Your task to perform on an android device: turn on airplane mode Image 0: 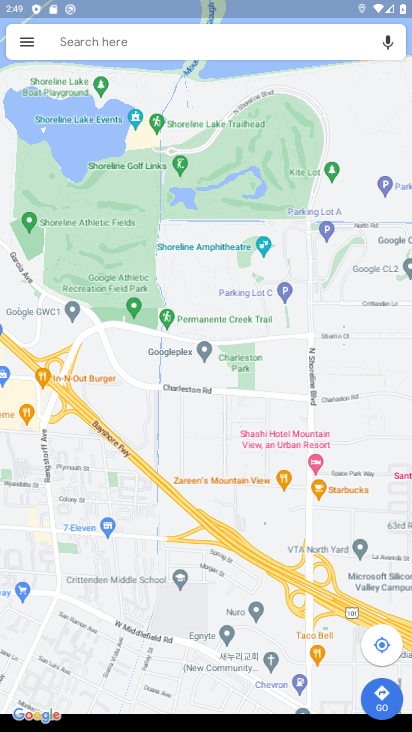
Step 0: click (149, 158)
Your task to perform on an android device: turn on airplane mode Image 1: 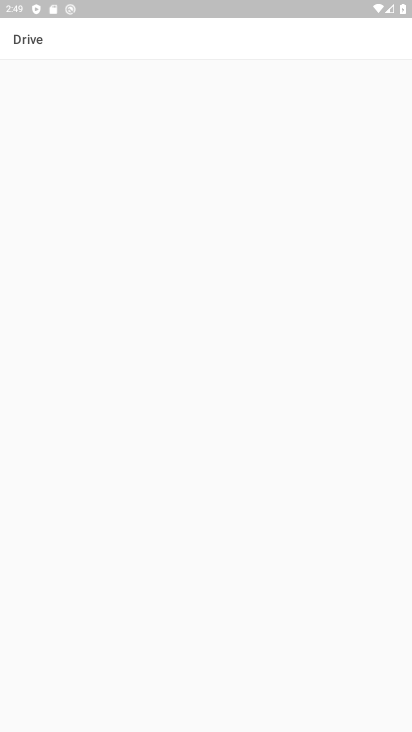
Step 1: press back button
Your task to perform on an android device: turn on airplane mode Image 2: 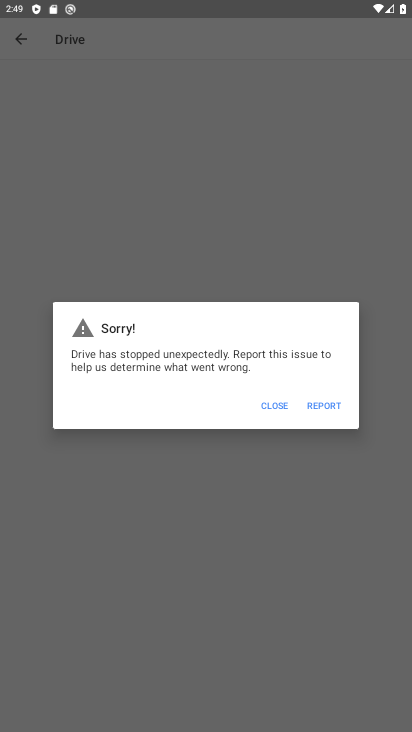
Step 2: click (277, 398)
Your task to perform on an android device: turn on airplane mode Image 3: 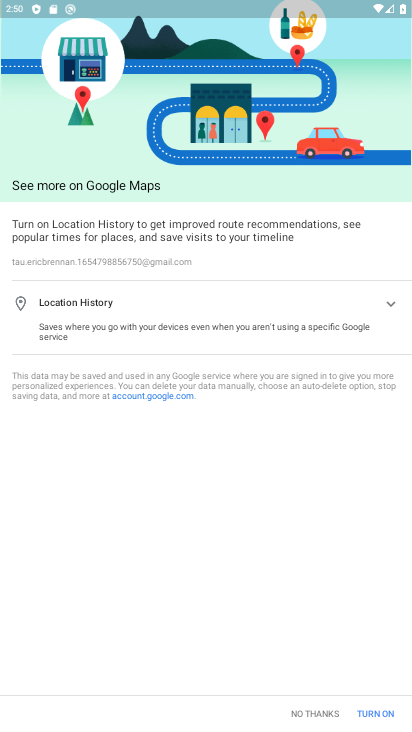
Step 3: press back button
Your task to perform on an android device: turn on airplane mode Image 4: 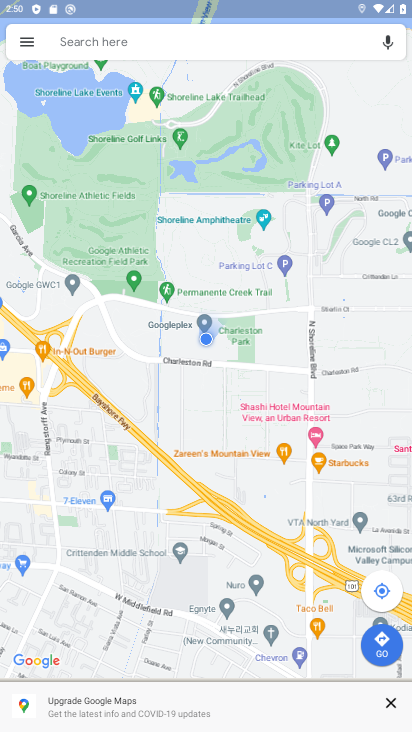
Step 4: press back button
Your task to perform on an android device: turn on airplane mode Image 5: 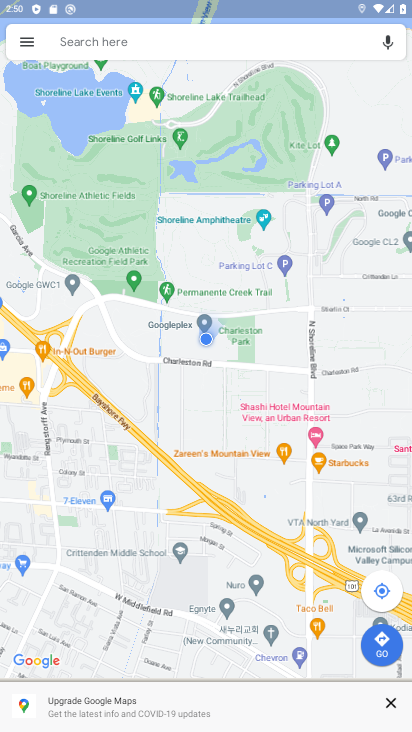
Step 5: press back button
Your task to perform on an android device: turn on airplane mode Image 6: 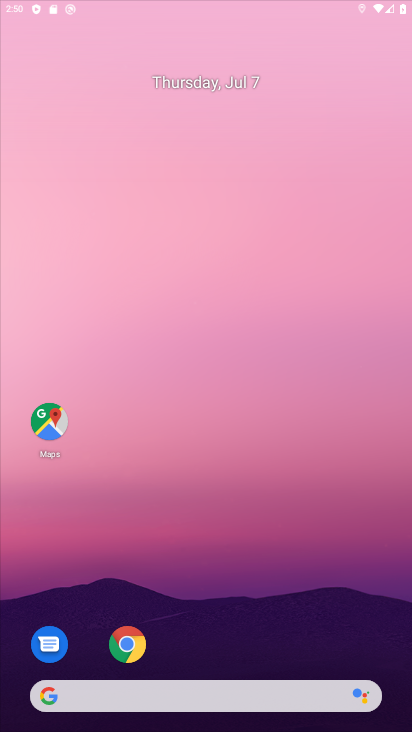
Step 6: press back button
Your task to perform on an android device: turn on airplane mode Image 7: 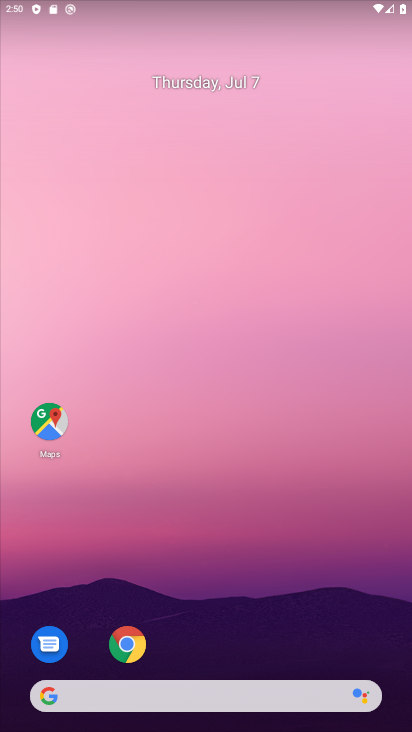
Step 7: press home button
Your task to perform on an android device: turn on airplane mode Image 8: 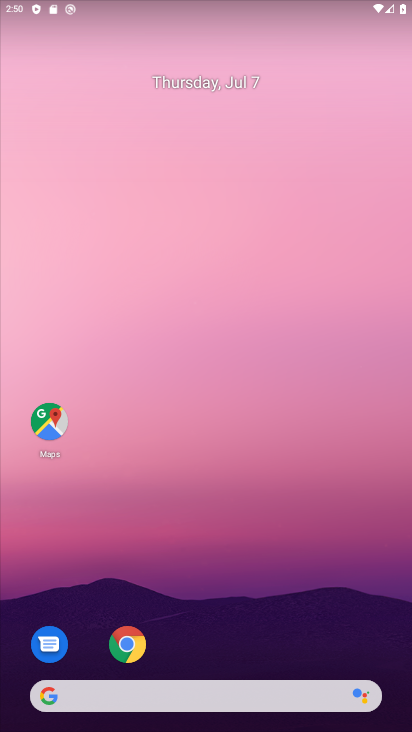
Step 8: drag from (263, 674) to (173, 172)
Your task to perform on an android device: turn on airplane mode Image 9: 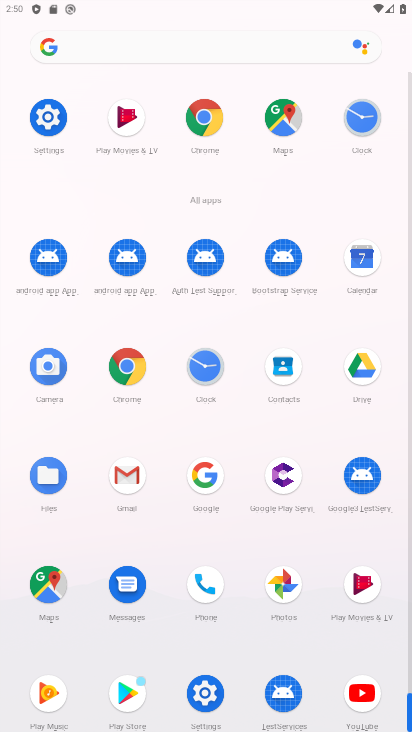
Step 9: click (204, 694)
Your task to perform on an android device: turn on airplane mode Image 10: 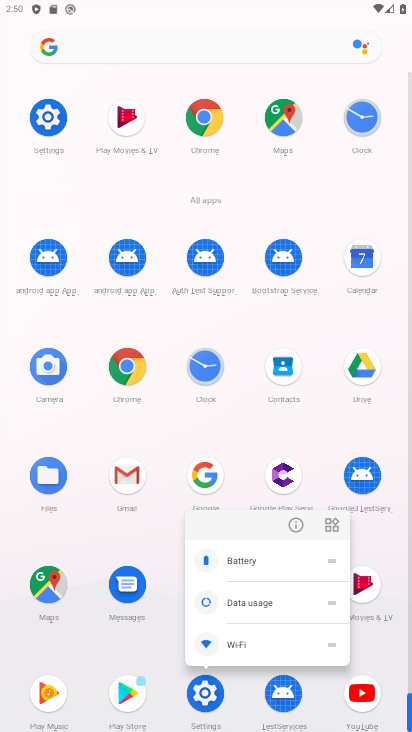
Step 10: click (204, 694)
Your task to perform on an android device: turn on airplane mode Image 11: 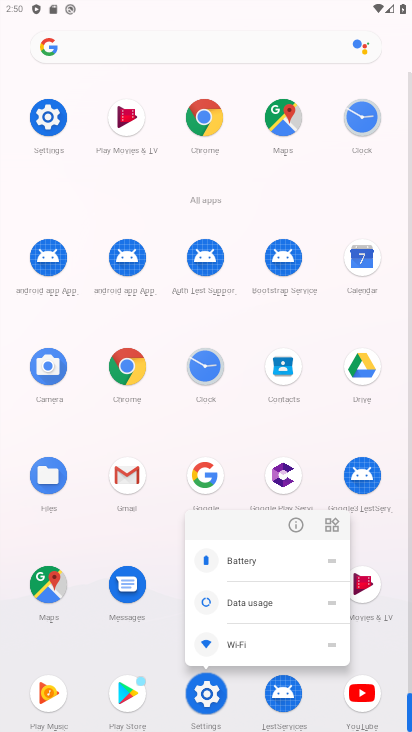
Step 11: click (201, 695)
Your task to perform on an android device: turn on airplane mode Image 12: 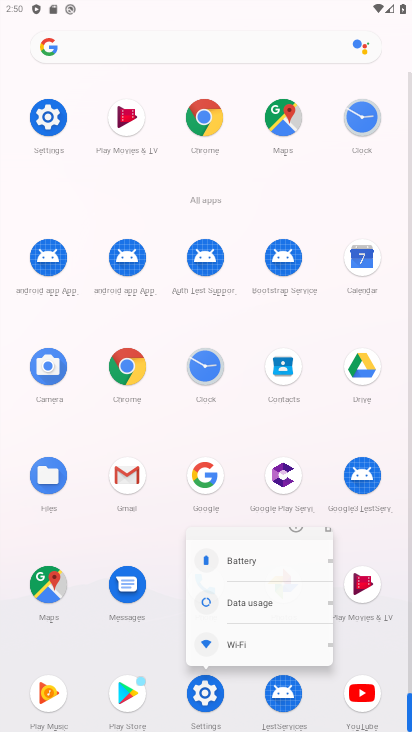
Step 12: click (201, 695)
Your task to perform on an android device: turn on airplane mode Image 13: 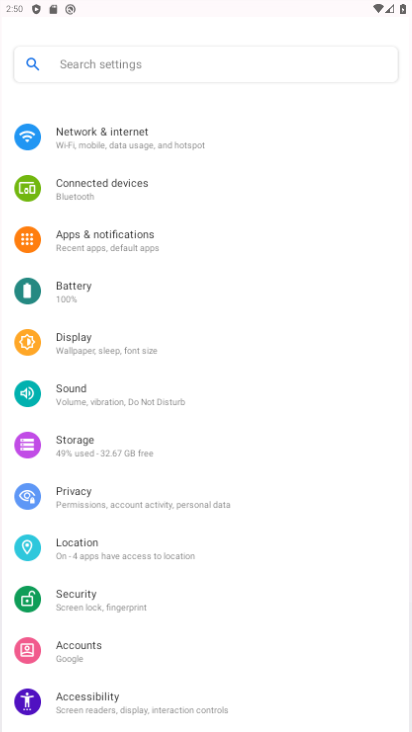
Step 13: click (201, 695)
Your task to perform on an android device: turn on airplane mode Image 14: 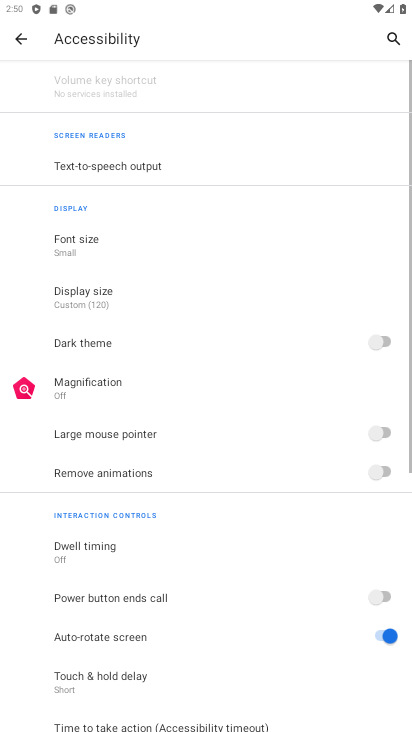
Step 14: click (95, 195)
Your task to perform on an android device: turn on airplane mode Image 15: 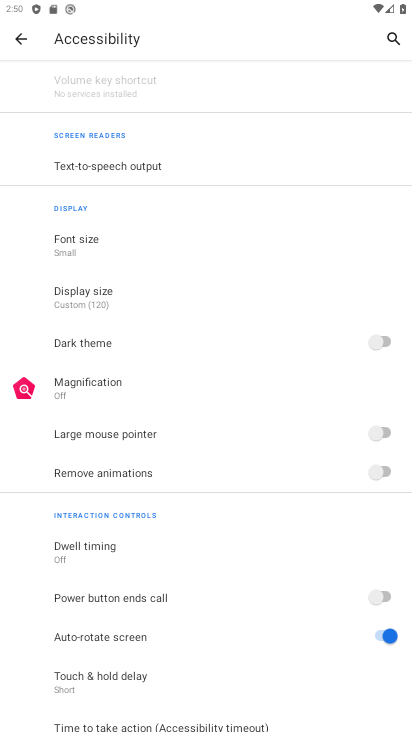
Step 15: click (22, 41)
Your task to perform on an android device: turn on airplane mode Image 16: 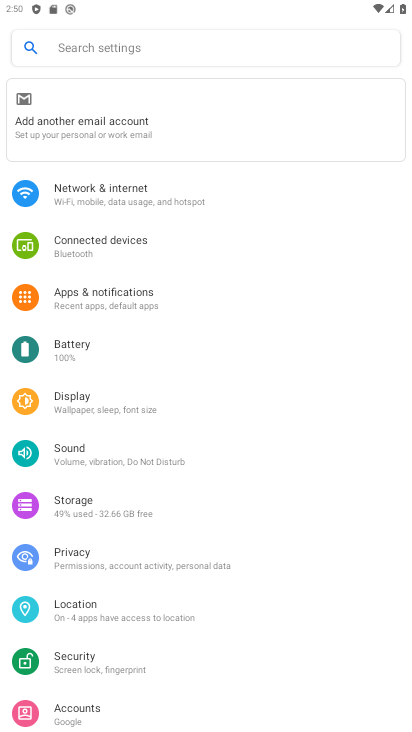
Step 16: click (99, 192)
Your task to perform on an android device: turn on airplane mode Image 17: 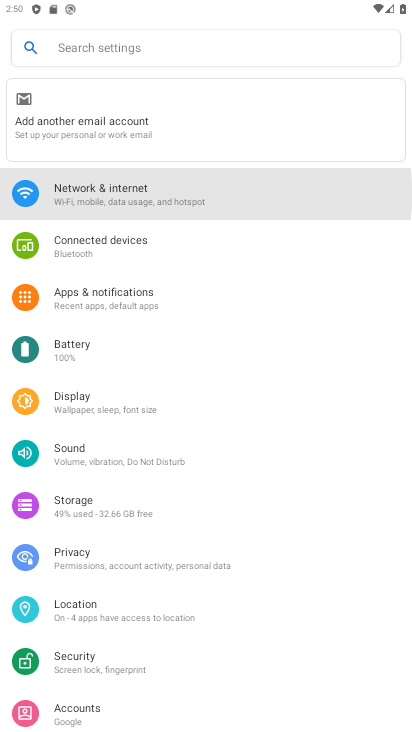
Step 17: click (100, 191)
Your task to perform on an android device: turn on airplane mode Image 18: 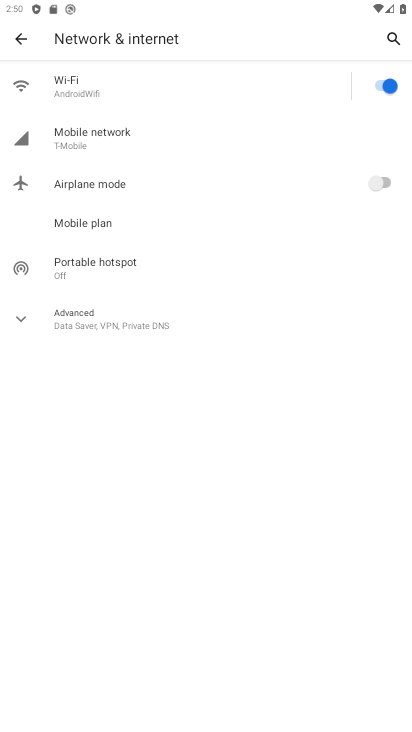
Step 18: click (371, 183)
Your task to perform on an android device: turn on airplane mode Image 19: 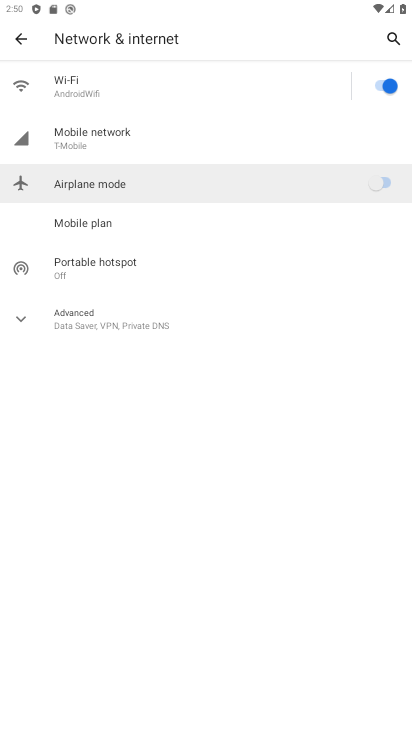
Step 19: click (365, 186)
Your task to perform on an android device: turn on airplane mode Image 20: 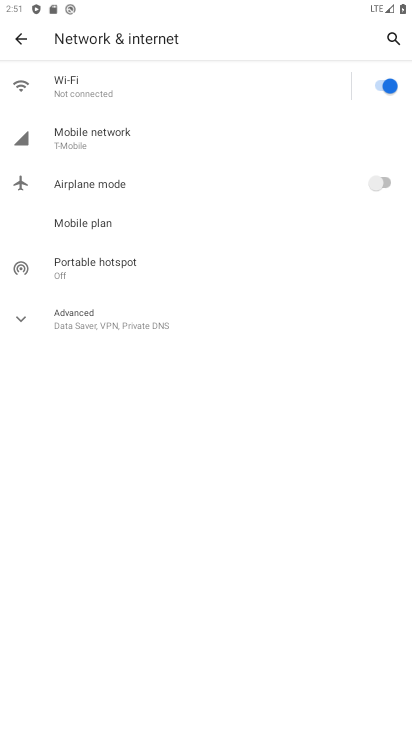
Step 20: click (374, 185)
Your task to perform on an android device: turn on airplane mode Image 21: 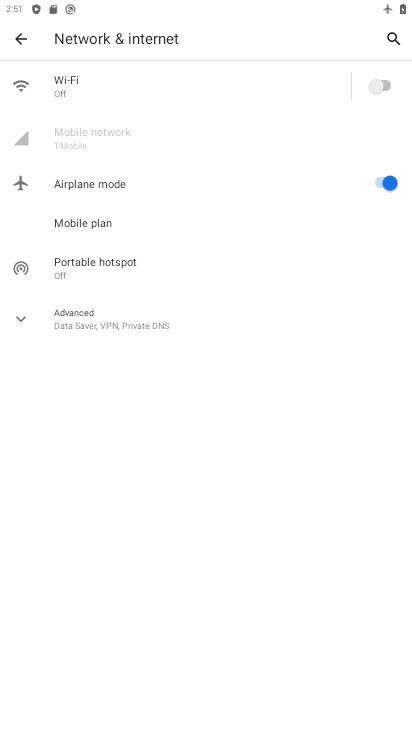
Step 21: task complete